Your task to perform on an android device: set the timer Image 0: 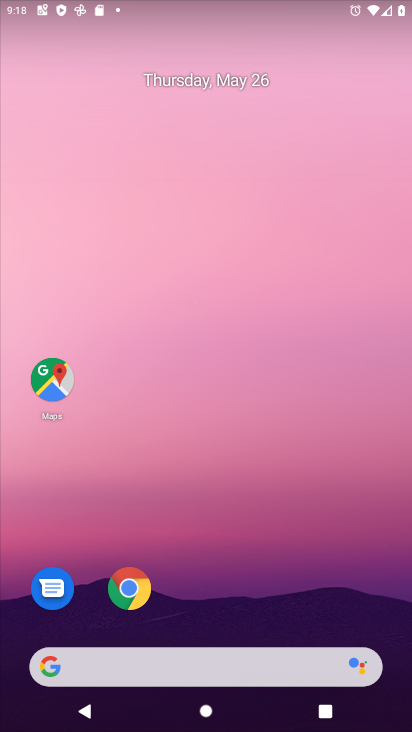
Step 0: drag from (385, 621) to (285, 74)
Your task to perform on an android device: set the timer Image 1: 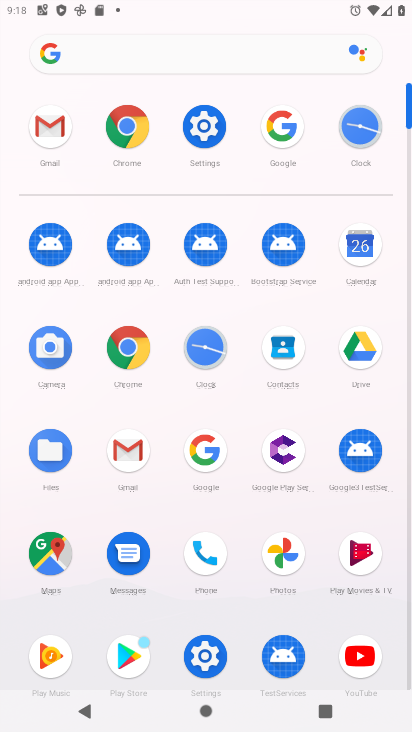
Step 1: click (204, 368)
Your task to perform on an android device: set the timer Image 2: 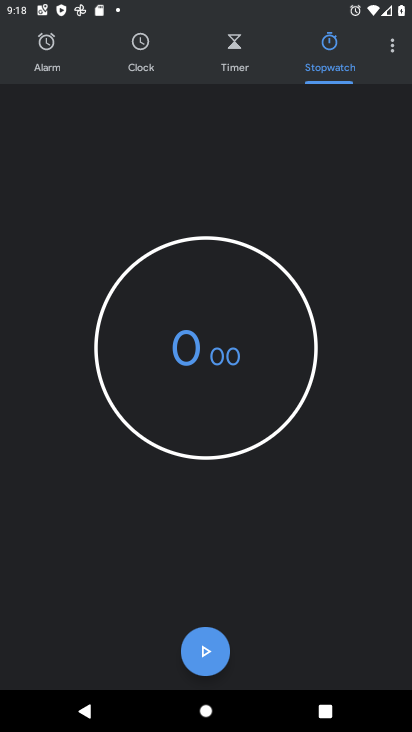
Step 2: click (388, 41)
Your task to perform on an android device: set the timer Image 3: 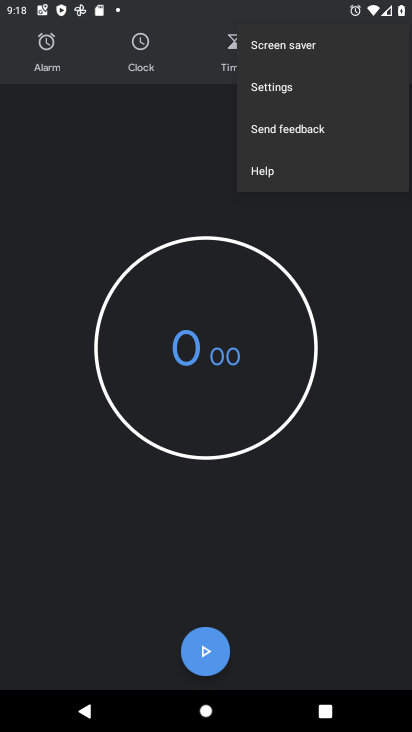
Step 3: click (301, 83)
Your task to perform on an android device: set the timer Image 4: 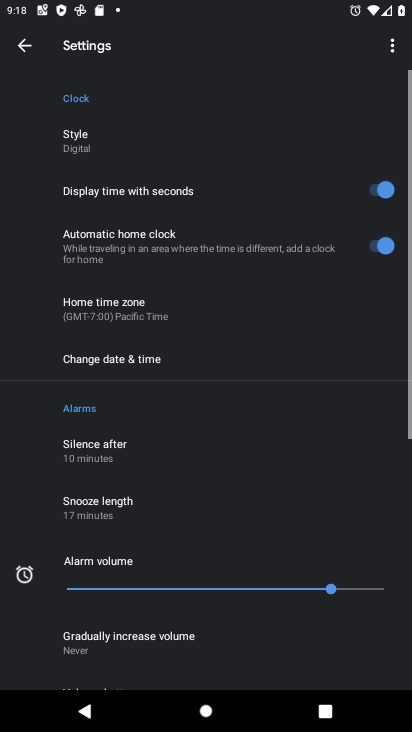
Step 4: click (126, 312)
Your task to perform on an android device: set the timer Image 5: 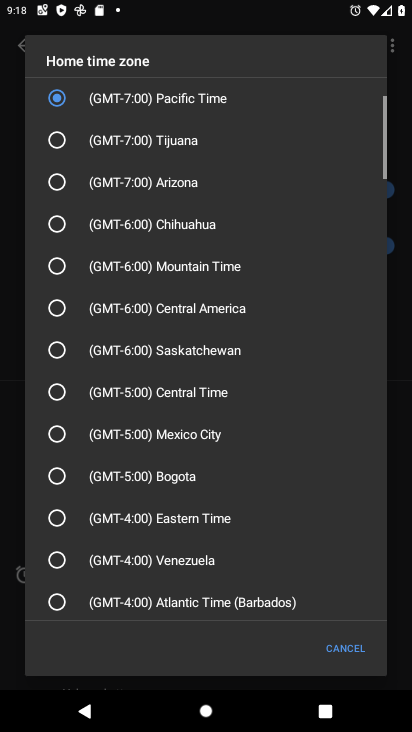
Step 5: click (138, 384)
Your task to perform on an android device: set the timer Image 6: 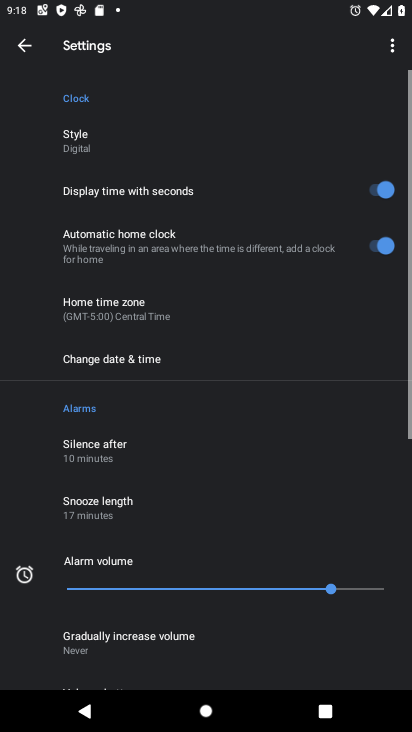
Step 6: task complete